Your task to perform on an android device: turn off notifications in google photos Image 0: 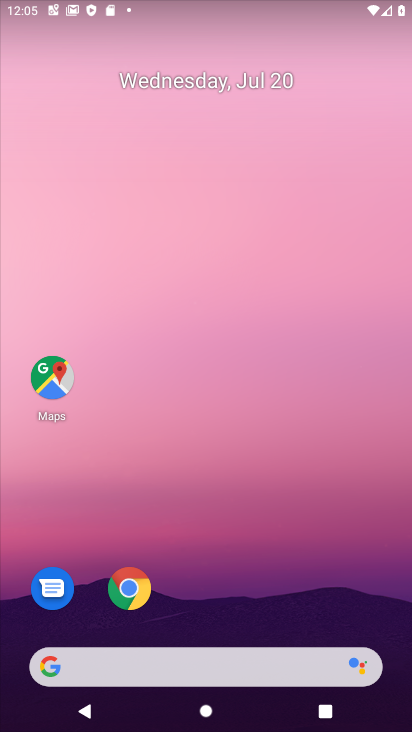
Step 0: drag from (378, 713) to (263, 35)
Your task to perform on an android device: turn off notifications in google photos Image 1: 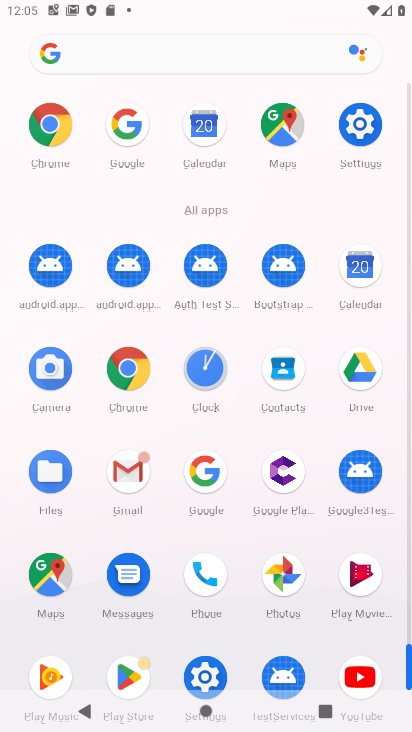
Step 1: click (272, 573)
Your task to perform on an android device: turn off notifications in google photos Image 2: 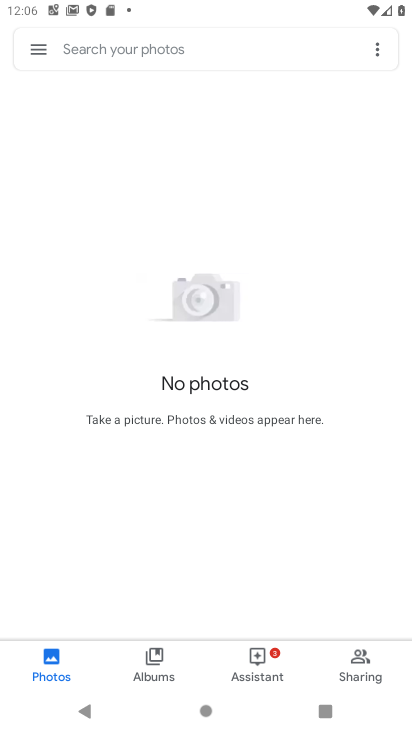
Step 2: click (40, 49)
Your task to perform on an android device: turn off notifications in google photos Image 3: 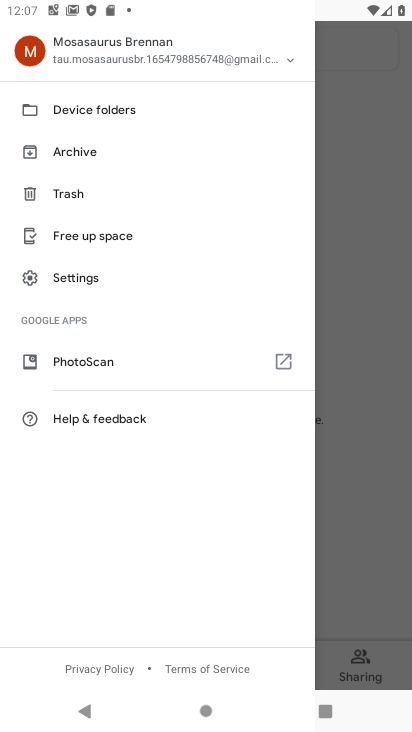
Step 3: click (58, 275)
Your task to perform on an android device: turn off notifications in google photos Image 4: 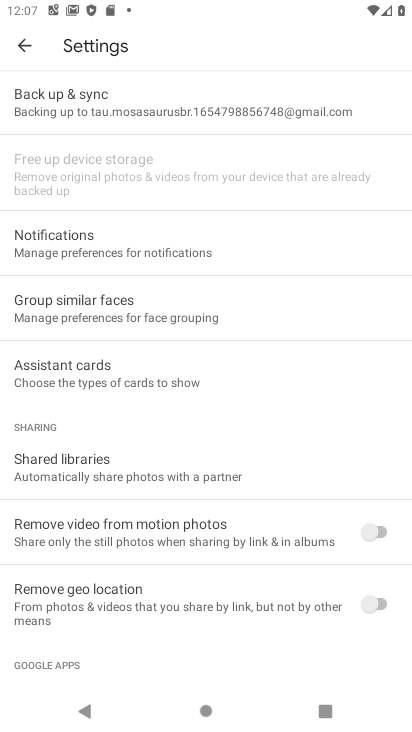
Step 4: click (71, 236)
Your task to perform on an android device: turn off notifications in google photos Image 5: 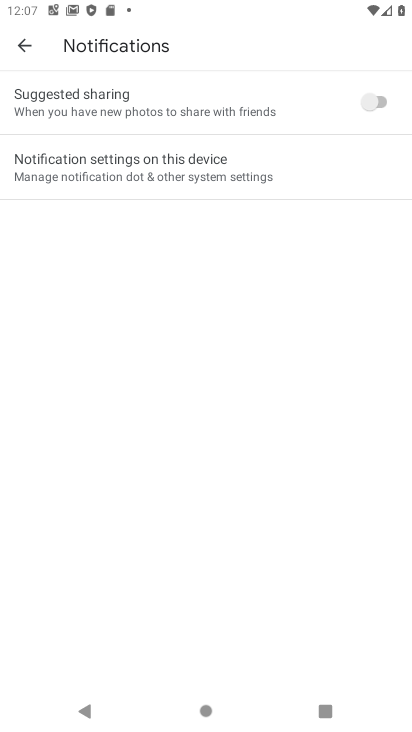
Step 5: task complete